Your task to perform on an android device: What is the news today? Image 0: 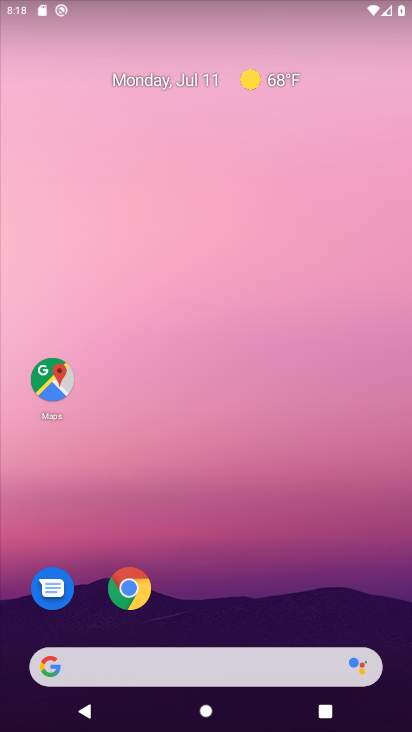
Step 0: drag from (25, 276) to (250, 302)
Your task to perform on an android device: What is the news today? Image 1: 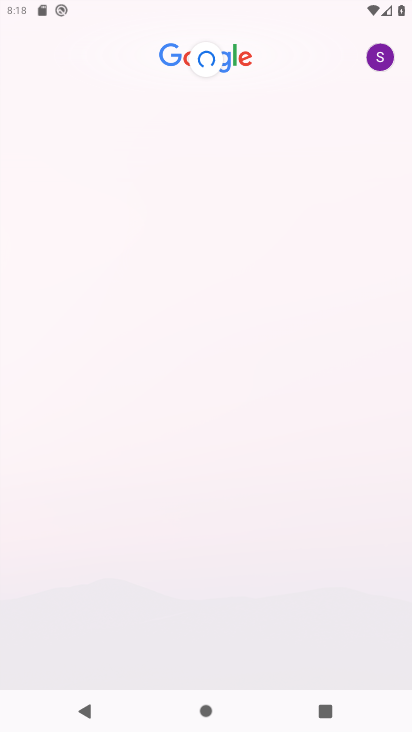
Step 1: task complete